Your task to perform on an android device: turn off data saver in the chrome app Image 0: 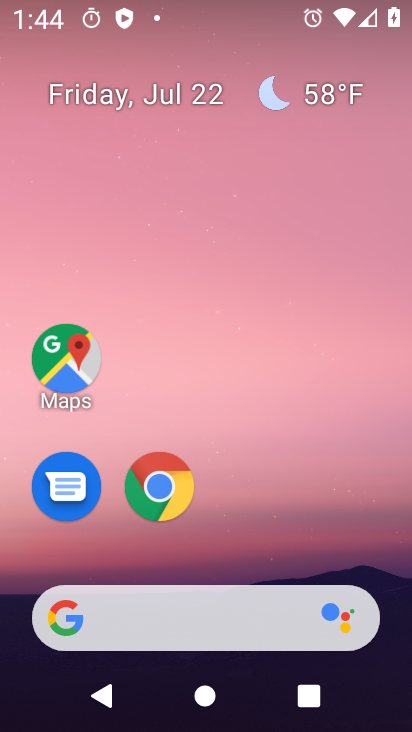
Step 0: press home button
Your task to perform on an android device: turn off data saver in the chrome app Image 1: 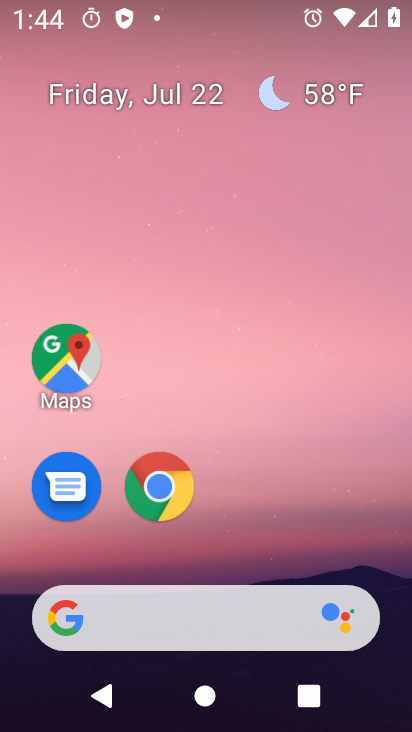
Step 1: drag from (380, 526) to (380, 123)
Your task to perform on an android device: turn off data saver in the chrome app Image 2: 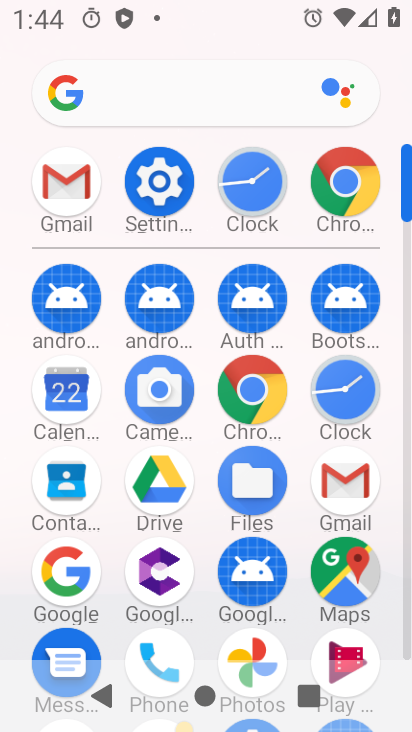
Step 2: click (269, 391)
Your task to perform on an android device: turn off data saver in the chrome app Image 3: 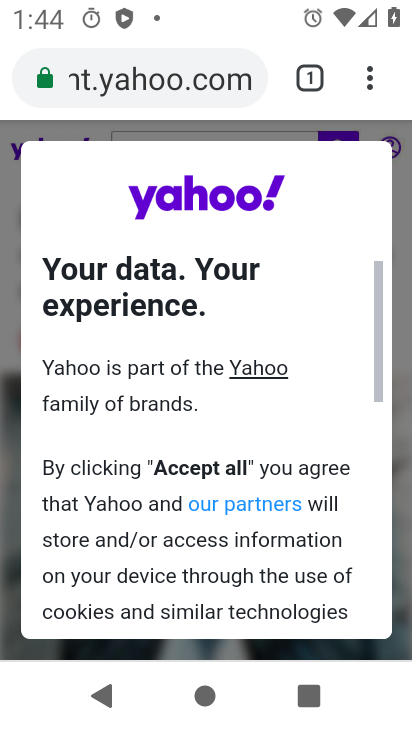
Step 3: click (369, 86)
Your task to perform on an android device: turn off data saver in the chrome app Image 4: 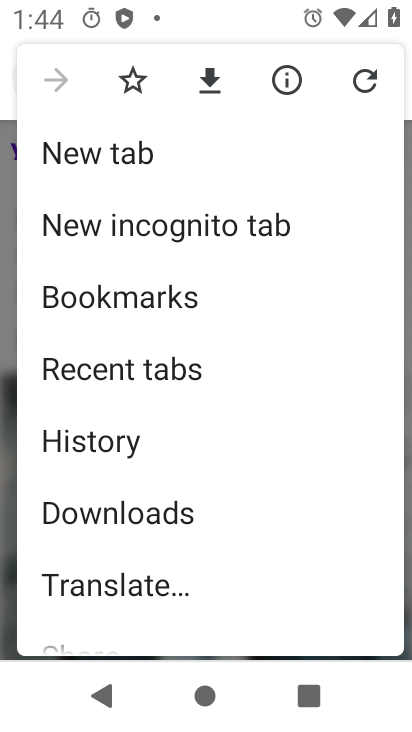
Step 4: drag from (371, 324) to (374, 247)
Your task to perform on an android device: turn off data saver in the chrome app Image 5: 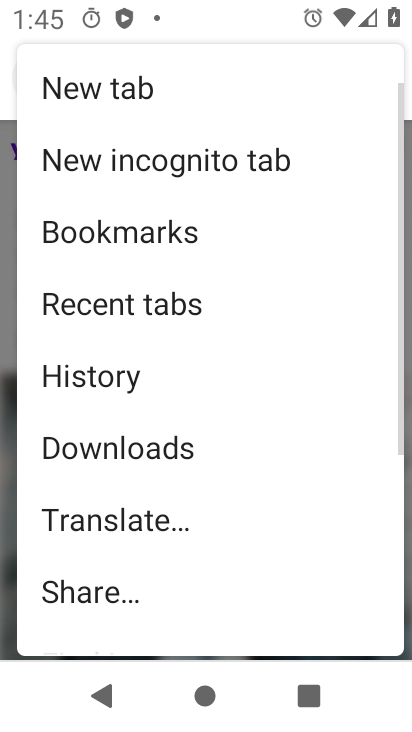
Step 5: drag from (352, 394) to (350, 310)
Your task to perform on an android device: turn off data saver in the chrome app Image 6: 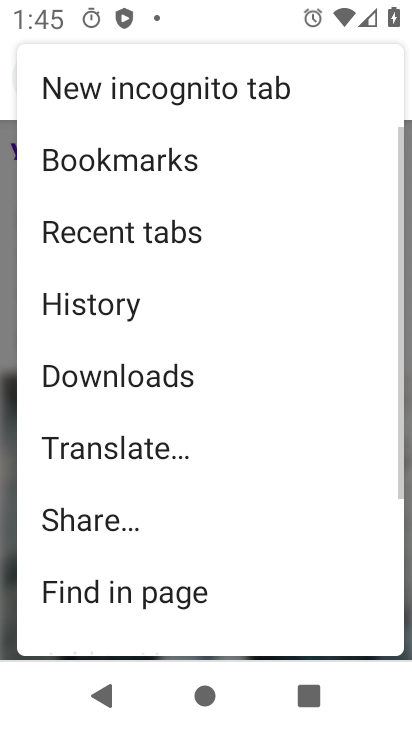
Step 6: drag from (343, 409) to (343, 322)
Your task to perform on an android device: turn off data saver in the chrome app Image 7: 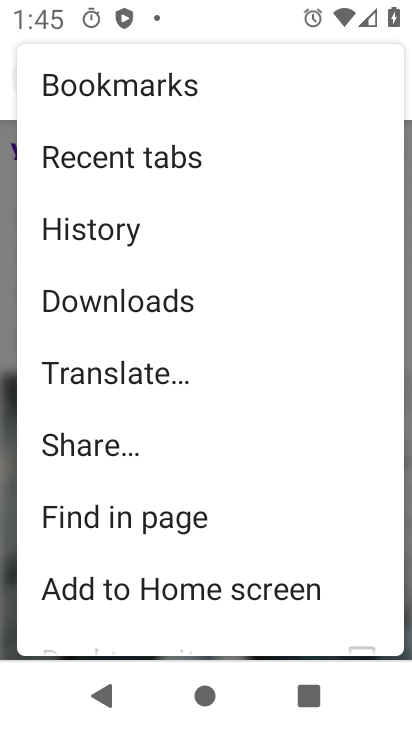
Step 7: drag from (337, 416) to (343, 324)
Your task to perform on an android device: turn off data saver in the chrome app Image 8: 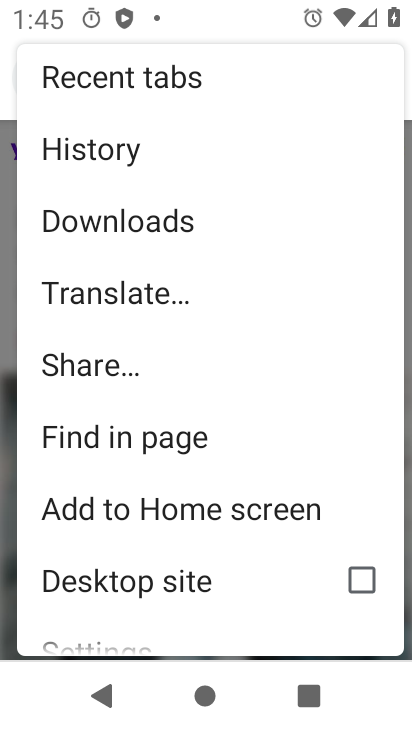
Step 8: drag from (343, 416) to (343, 282)
Your task to perform on an android device: turn off data saver in the chrome app Image 9: 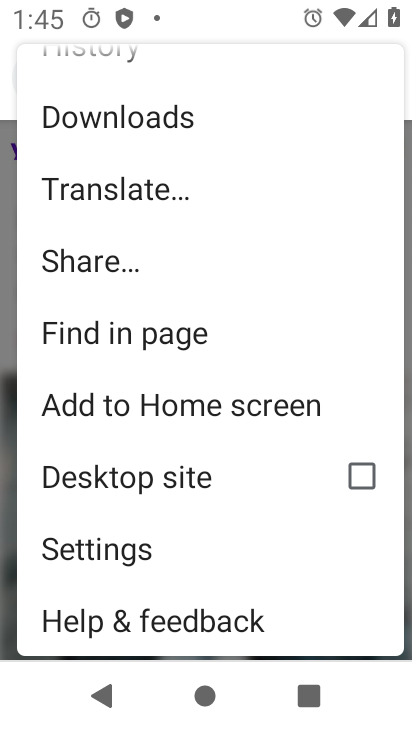
Step 9: click (161, 539)
Your task to perform on an android device: turn off data saver in the chrome app Image 10: 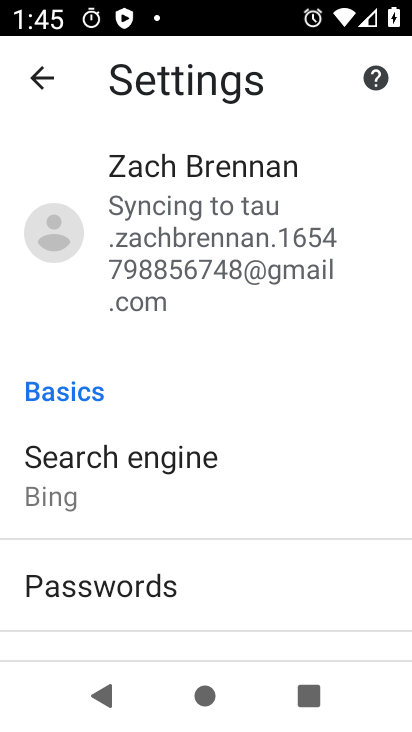
Step 10: drag from (305, 549) to (323, 421)
Your task to perform on an android device: turn off data saver in the chrome app Image 11: 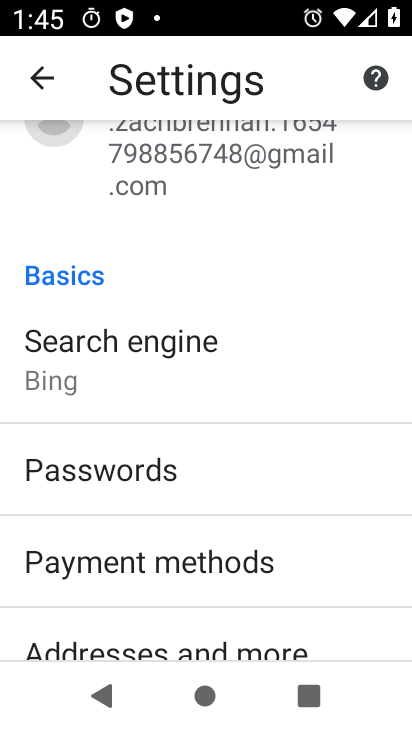
Step 11: drag from (334, 573) to (347, 480)
Your task to perform on an android device: turn off data saver in the chrome app Image 12: 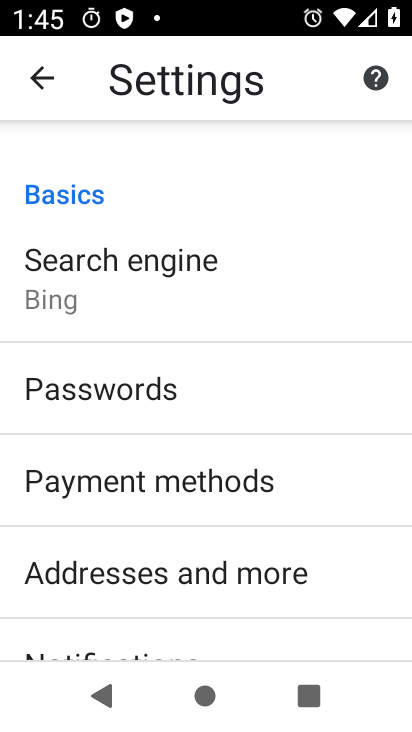
Step 12: drag from (346, 556) to (338, 460)
Your task to perform on an android device: turn off data saver in the chrome app Image 13: 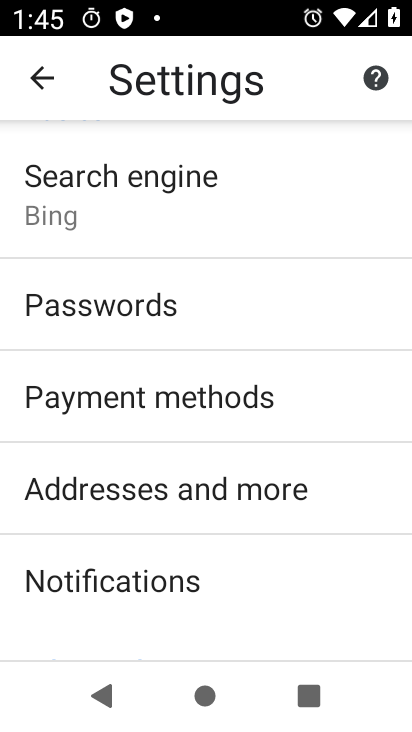
Step 13: drag from (340, 578) to (350, 490)
Your task to perform on an android device: turn off data saver in the chrome app Image 14: 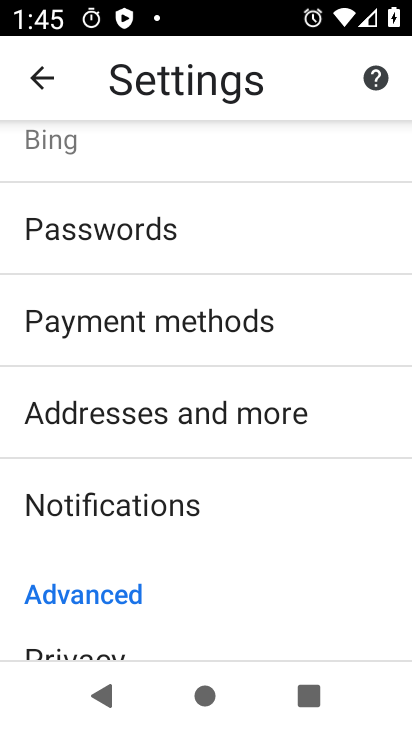
Step 14: drag from (342, 552) to (327, 428)
Your task to perform on an android device: turn off data saver in the chrome app Image 15: 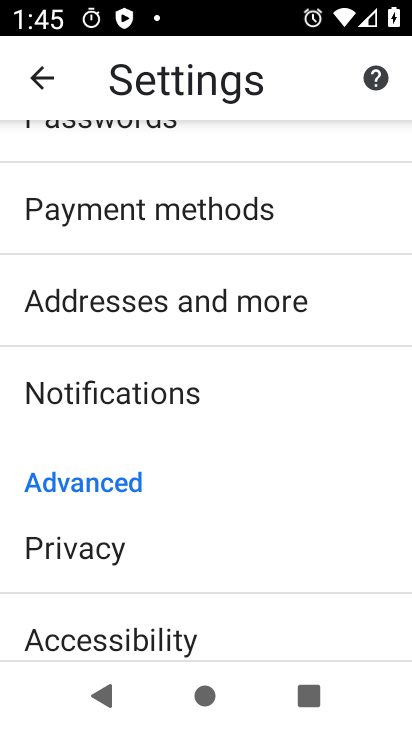
Step 15: drag from (339, 566) to (338, 440)
Your task to perform on an android device: turn off data saver in the chrome app Image 16: 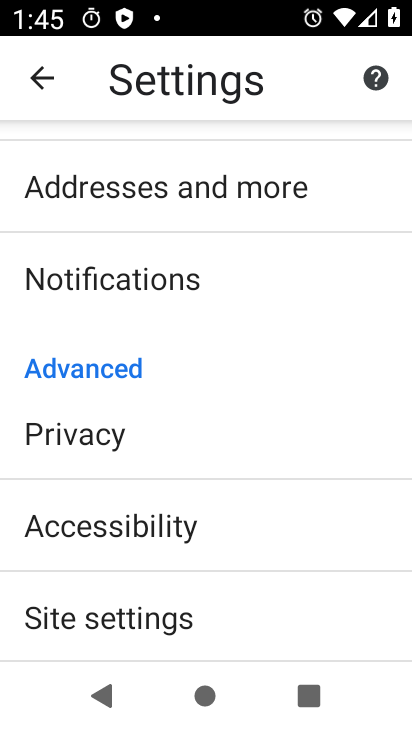
Step 16: drag from (338, 589) to (319, 460)
Your task to perform on an android device: turn off data saver in the chrome app Image 17: 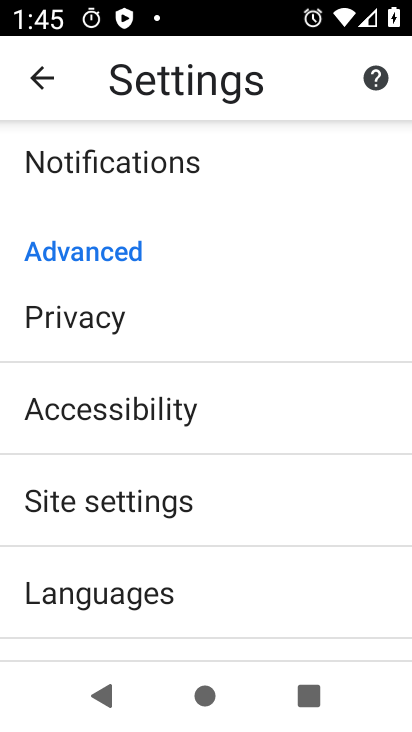
Step 17: drag from (313, 581) to (315, 463)
Your task to perform on an android device: turn off data saver in the chrome app Image 18: 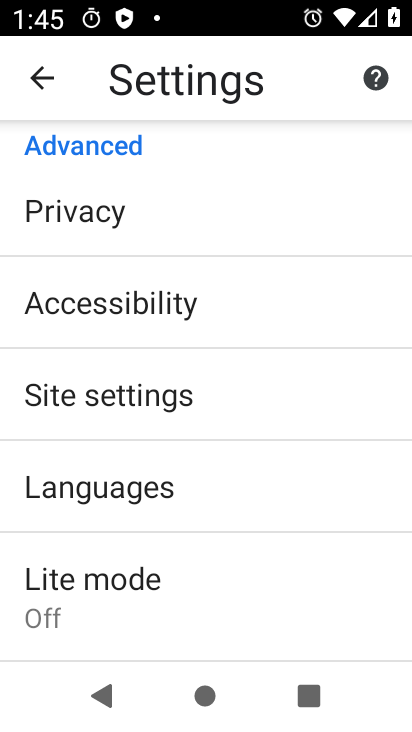
Step 18: click (328, 576)
Your task to perform on an android device: turn off data saver in the chrome app Image 19: 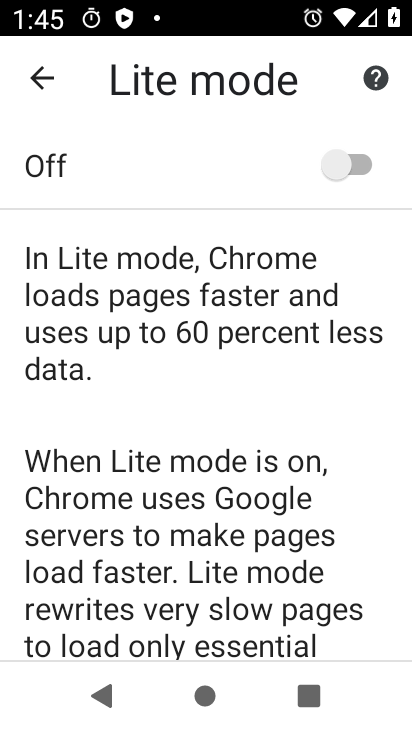
Step 19: task complete